Your task to perform on an android device: Do I have any events tomorrow? Image 0: 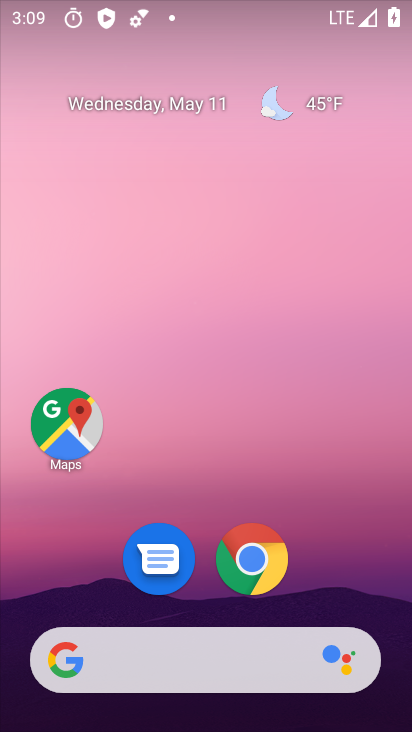
Step 0: click (159, 101)
Your task to perform on an android device: Do I have any events tomorrow? Image 1: 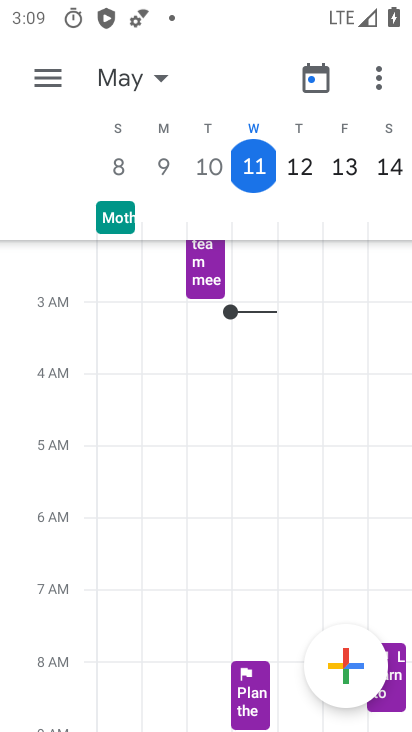
Step 1: task complete